Your task to perform on an android device: Open Yahoo.com Image 0: 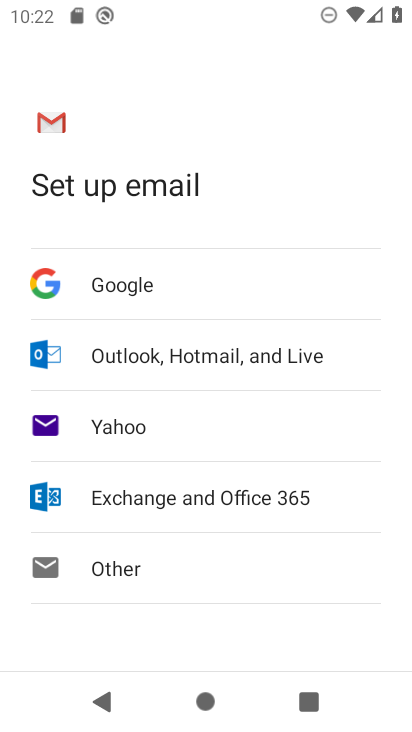
Step 0: press home button
Your task to perform on an android device: Open Yahoo.com Image 1: 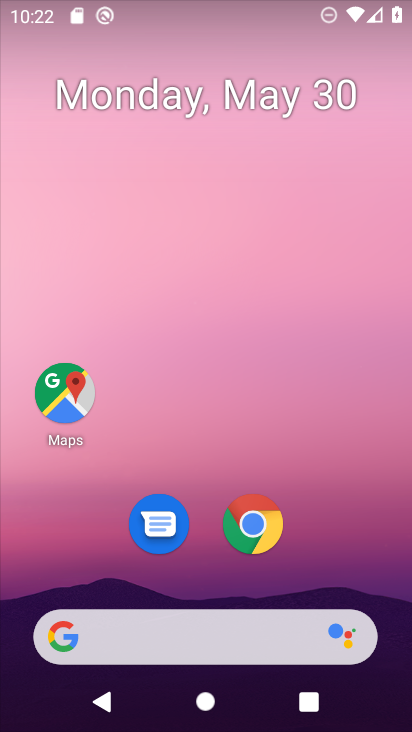
Step 1: click (227, 641)
Your task to perform on an android device: Open Yahoo.com Image 2: 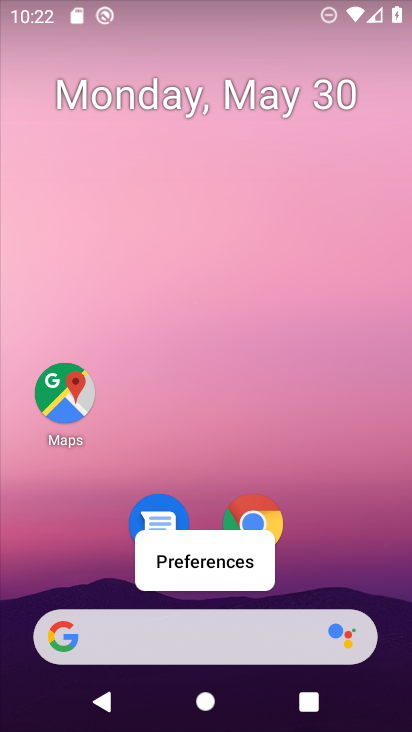
Step 2: click (168, 626)
Your task to perform on an android device: Open Yahoo.com Image 3: 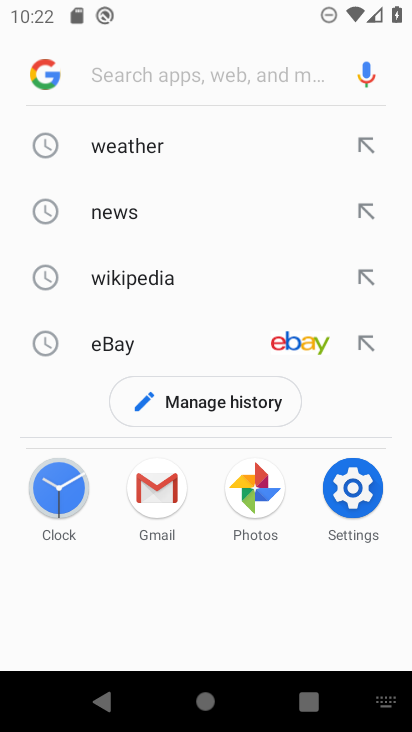
Step 3: type "yahoo.com"
Your task to perform on an android device: Open Yahoo.com Image 4: 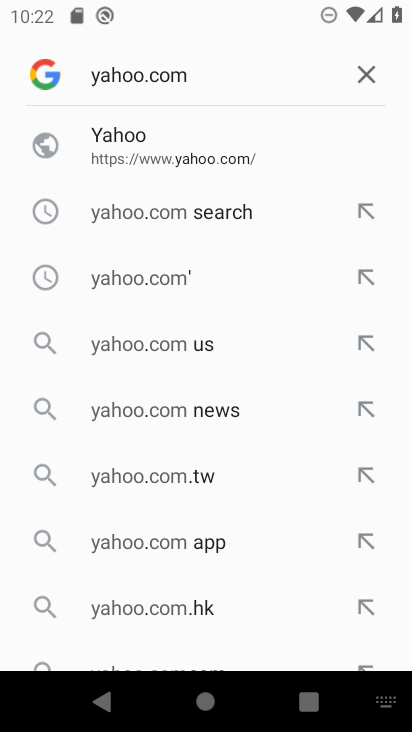
Step 4: click (124, 138)
Your task to perform on an android device: Open Yahoo.com Image 5: 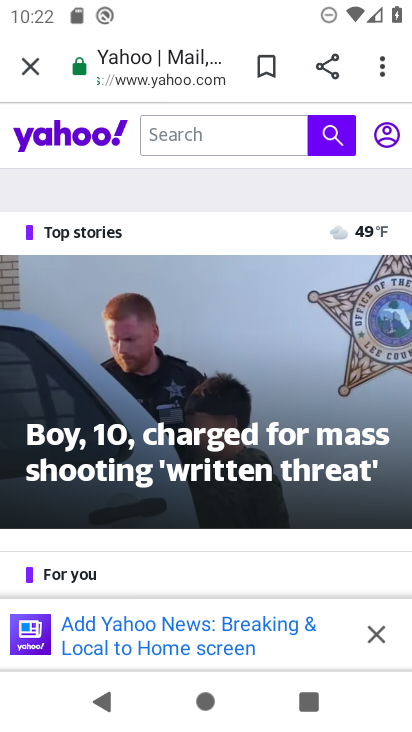
Step 5: task complete